Your task to perform on an android device: Go to Reddit.com Image 0: 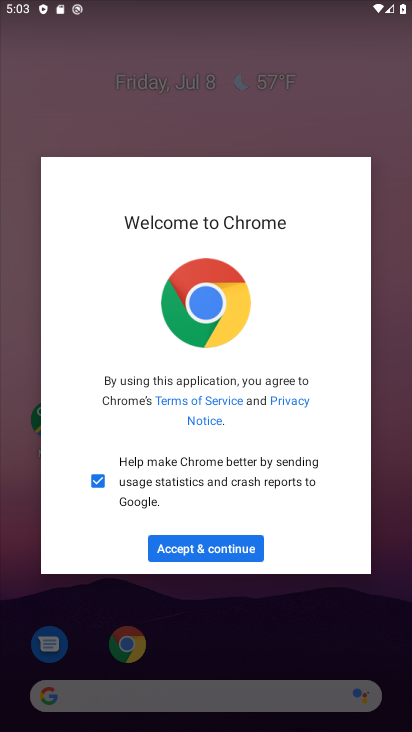
Step 0: click (226, 554)
Your task to perform on an android device: Go to Reddit.com Image 1: 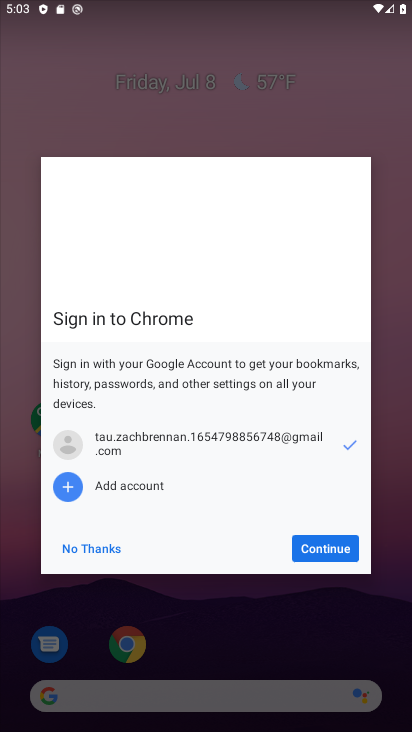
Step 1: click (315, 540)
Your task to perform on an android device: Go to Reddit.com Image 2: 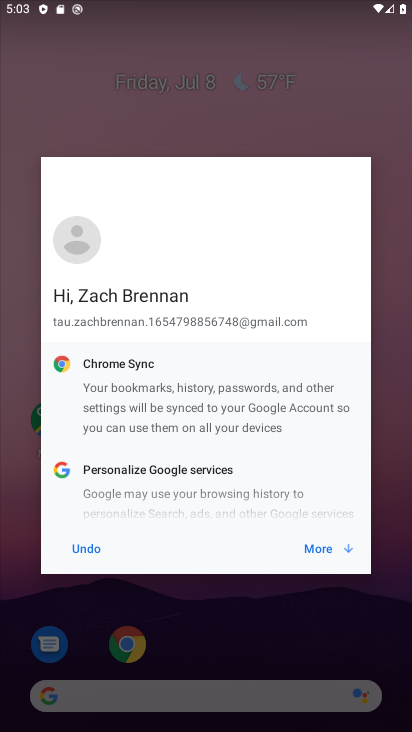
Step 2: click (315, 549)
Your task to perform on an android device: Go to Reddit.com Image 3: 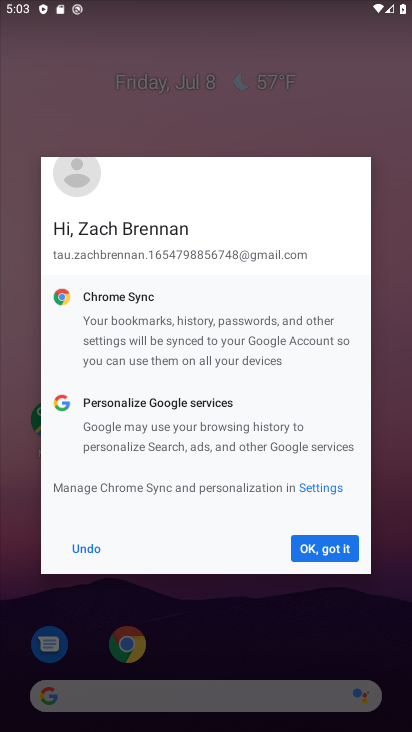
Step 3: click (315, 549)
Your task to perform on an android device: Go to Reddit.com Image 4: 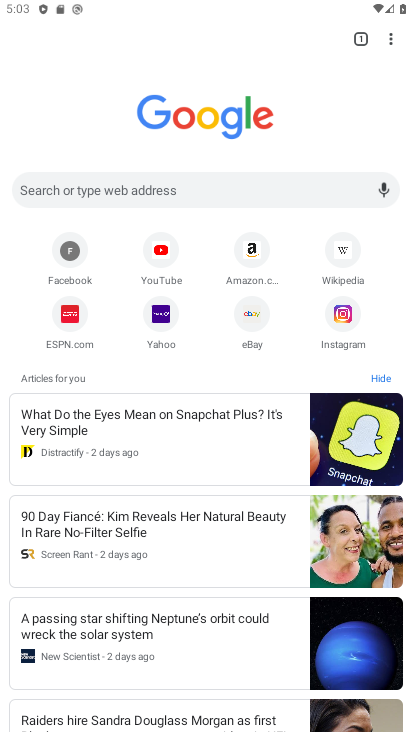
Step 4: click (174, 182)
Your task to perform on an android device: Go to Reddit.com Image 5: 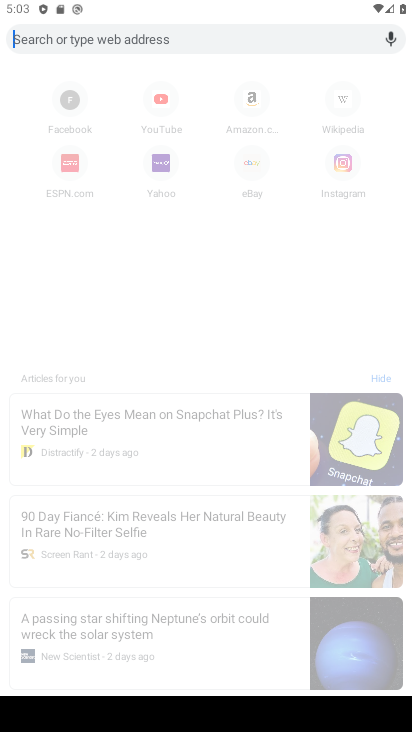
Step 5: type "Reddit.com"
Your task to perform on an android device: Go to Reddit.com Image 6: 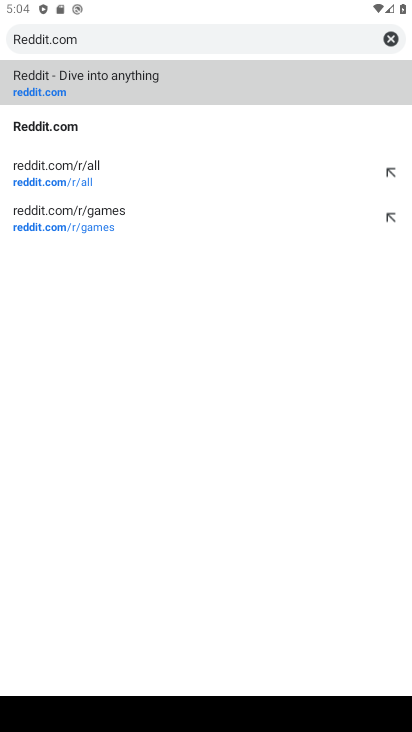
Step 6: click (47, 124)
Your task to perform on an android device: Go to Reddit.com Image 7: 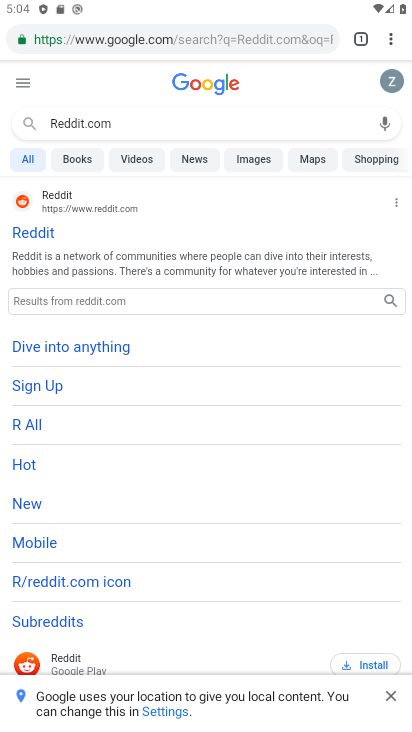
Step 7: click (49, 220)
Your task to perform on an android device: Go to Reddit.com Image 8: 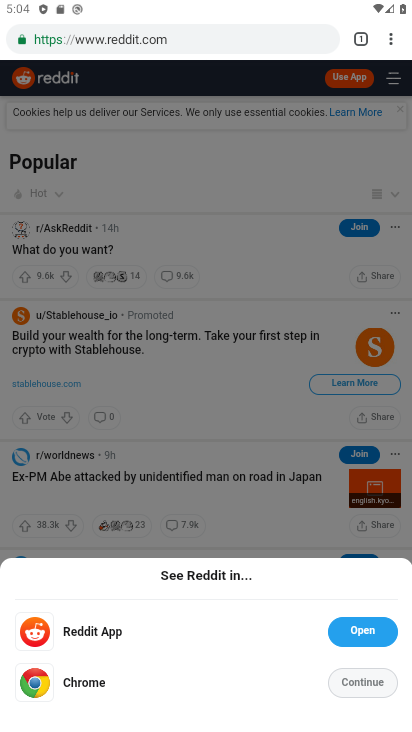
Step 8: click (370, 680)
Your task to perform on an android device: Go to Reddit.com Image 9: 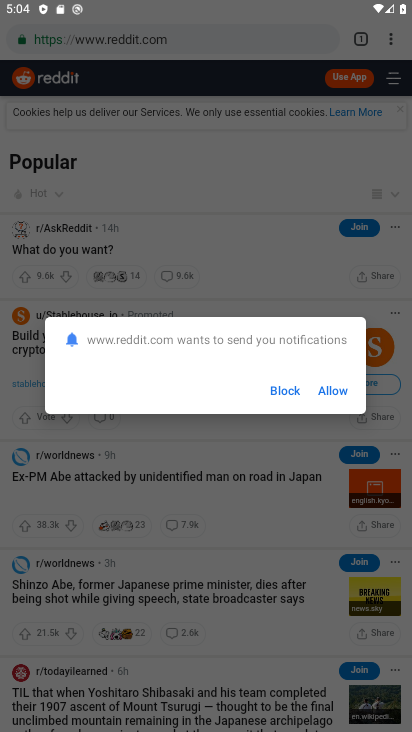
Step 9: click (329, 398)
Your task to perform on an android device: Go to Reddit.com Image 10: 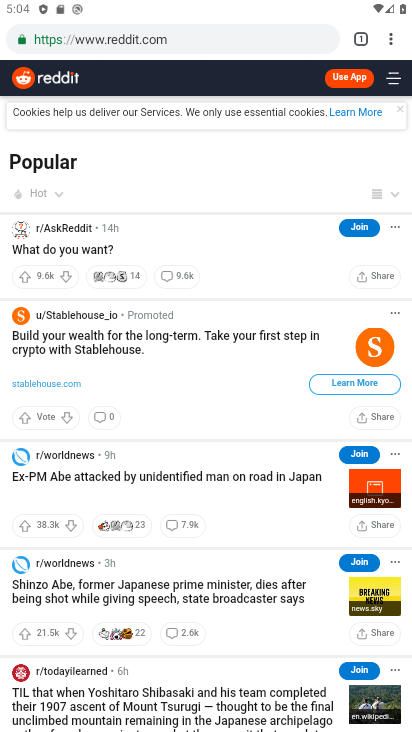
Step 10: task complete